Your task to perform on an android device: What's the weather going to be this weekend? Image 0: 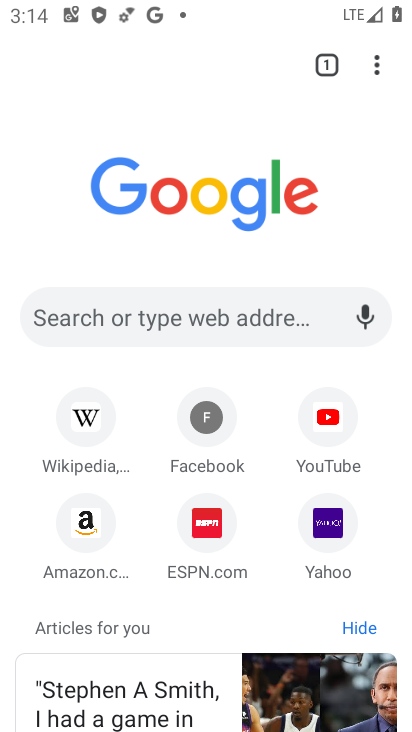
Step 0: press home button
Your task to perform on an android device: What's the weather going to be this weekend? Image 1: 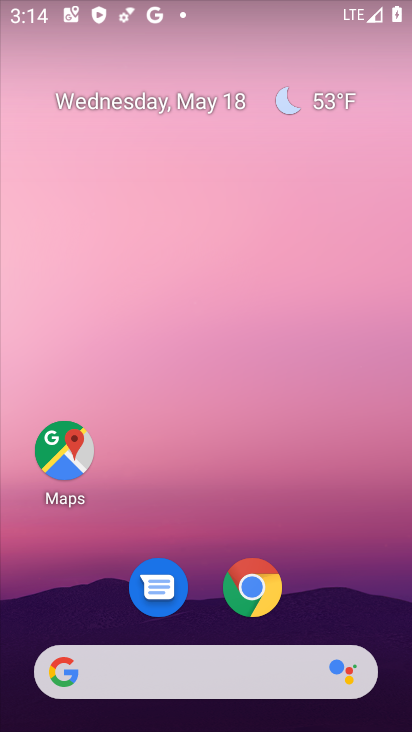
Step 1: drag from (200, 641) to (276, 166)
Your task to perform on an android device: What's the weather going to be this weekend? Image 2: 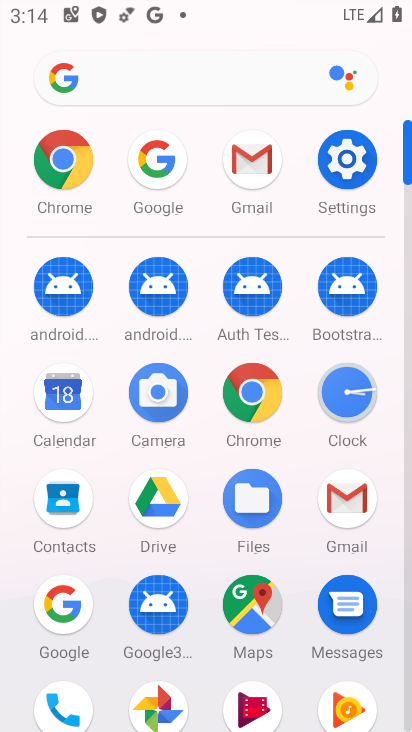
Step 2: click (59, 619)
Your task to perform on an android device: What's the weather going to be this weekend? Image 3: 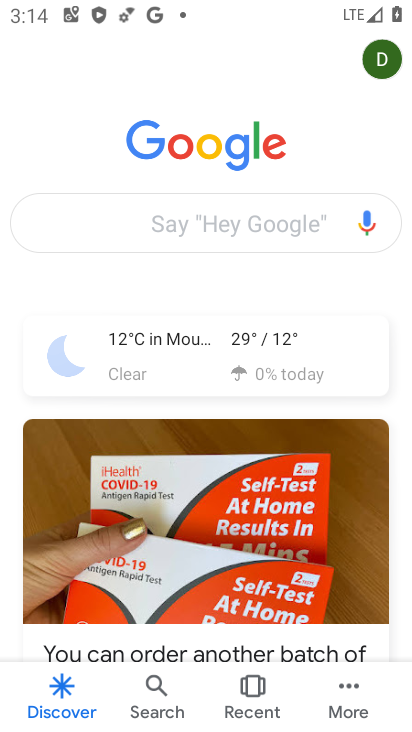
Step 3: click (189, 212)
Your task to perform on an android device: What's the weather going to be this weekend? Image 4: 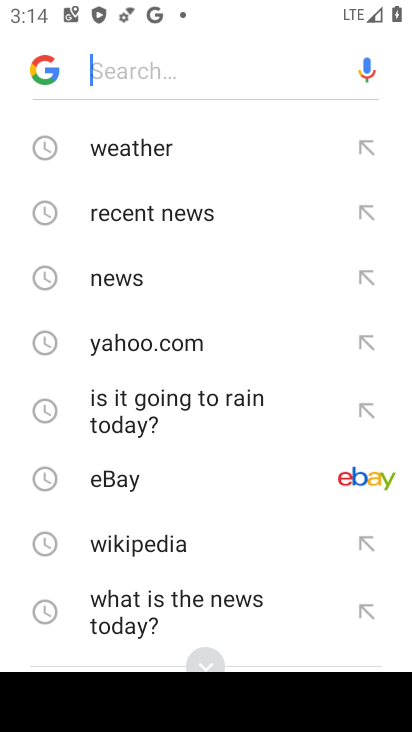
Step 4: click (191, 146)
Your task to perform on an android device: What's the weather going to be this weekend? Image 5: 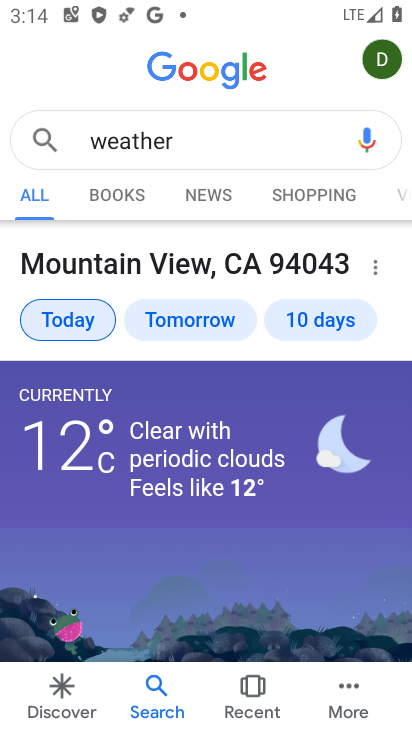
Step 5: task complete